Your task to perform on an android device: change the clock display to digital Image 0: 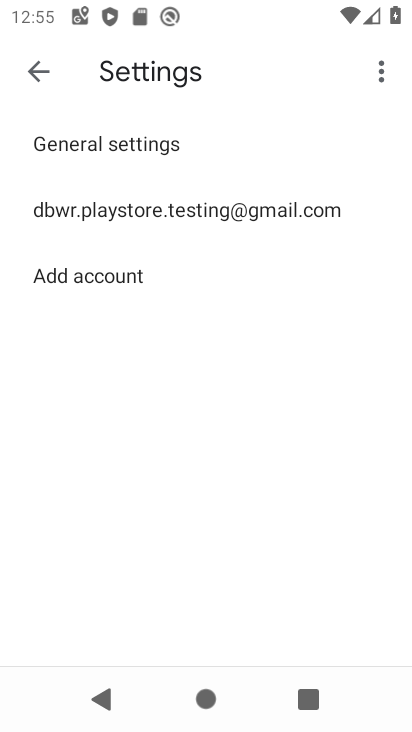
Step 0: press home button
Your task to perform on an android device: change the clock display to digital Image 1: 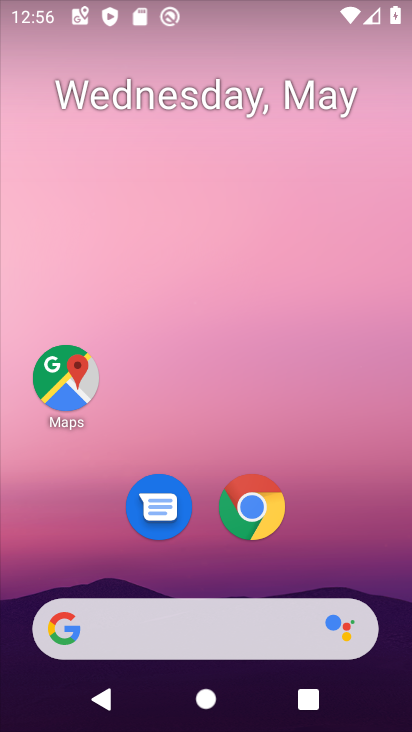
Step 1: drag from (348, 566) to (327, 231)
Your task to perform on an android device: change the clock display to digital Image 2: 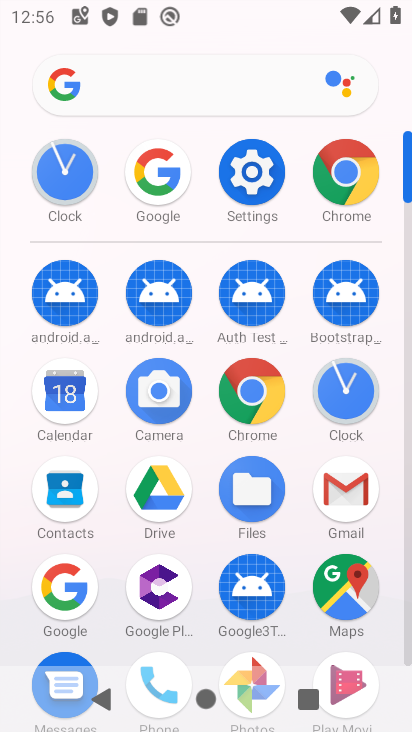
Step 2: click (347, 401)
Your task to perform on an android device: change the clock display to digital Image 3: 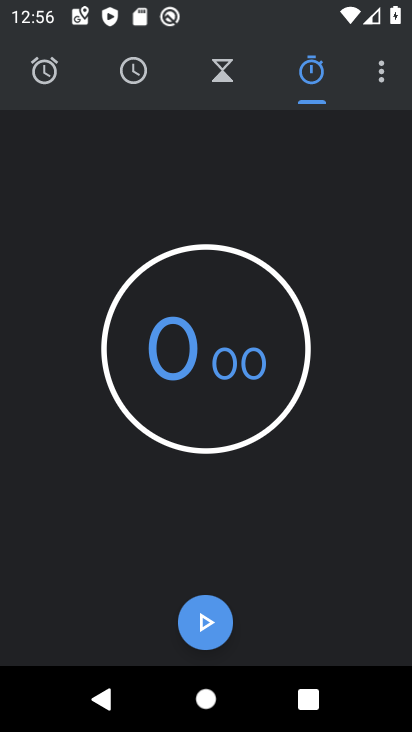
Step 3: click (380, 66)
Your task to perform on an android device: change the clock display to digital Image 4: 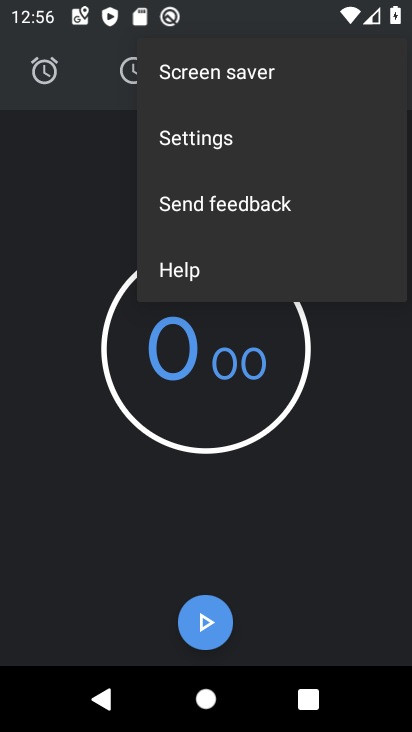
Step 4: click (229, 142)
Your task to perform on an android device: change the clock display to digital Image 5: 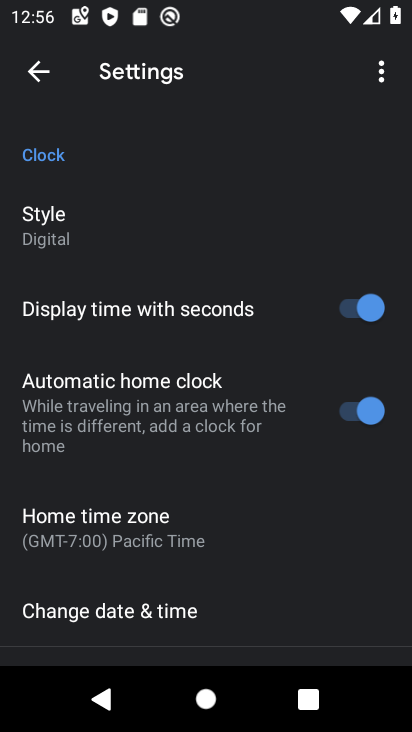
Step 5: click (116, 223)
Your task to perform on an android device: change the clock display to digital Image 6: 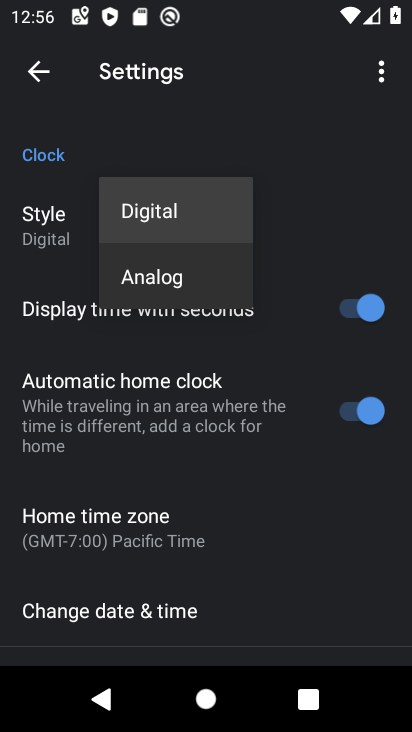
Step 6: click (139, 268)
Your task to perform on an android device: change the clock display to digital Image 7: 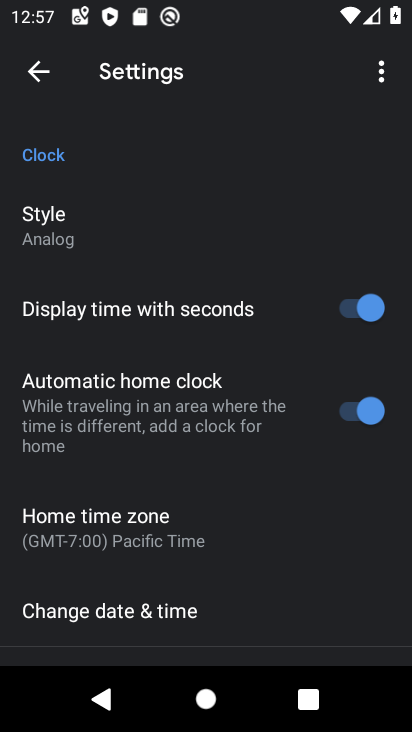
Step 7: task complete